Your task to perform on an android device: Is it going to rain tomorrow? Image 0: 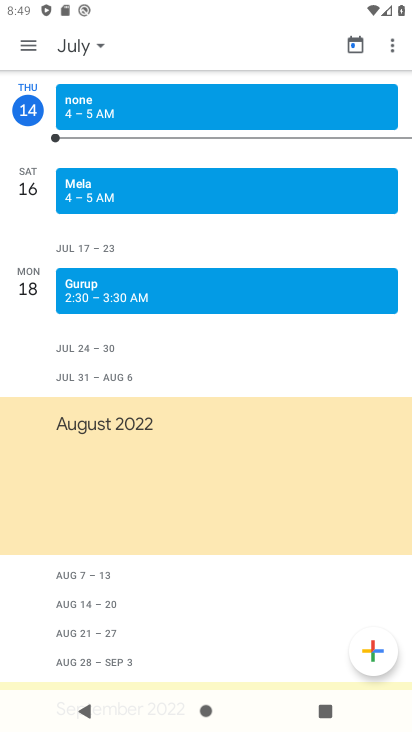
Step 0: press home button
Your task to perform on an android device: Is it going to rain tomorrow? Image 1: 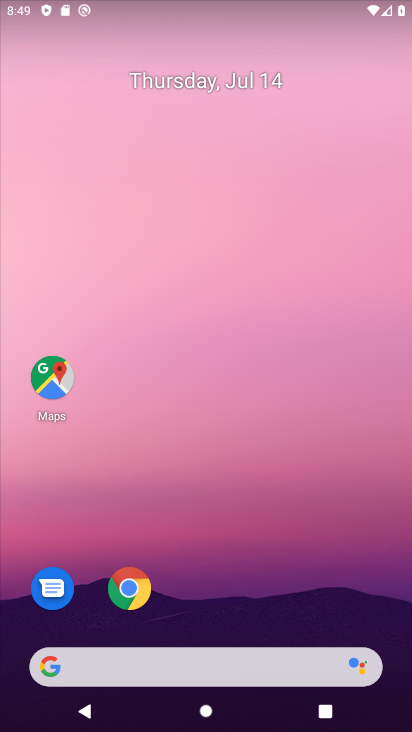
Step 1: drag from (196, 535) to (131, 56)
Your task to perform on an android device: Is it going to rain tomorrow? Image 2: 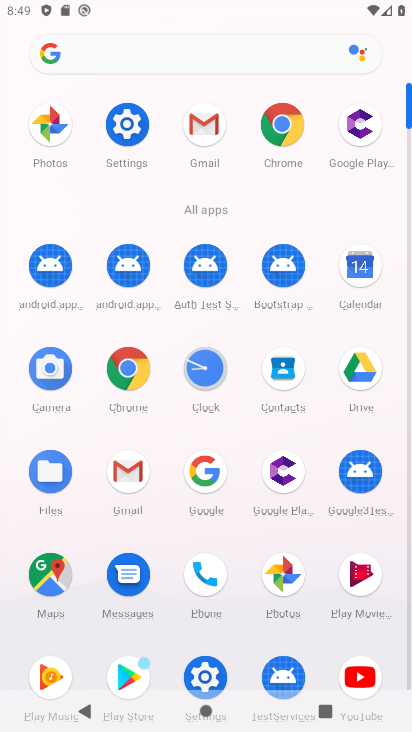
Step 2: click (358, 265)
Your task to perform on an android device: Is it going to rain tomorrow? Image 3: 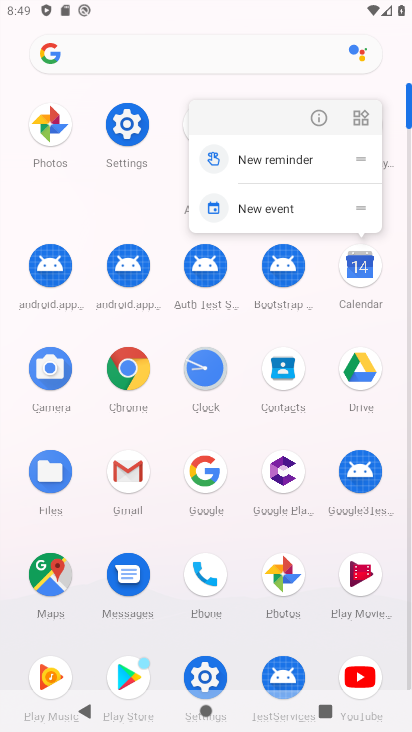
Step 3: click (358, 265)
Your task to perform on an android device: Is it going to rain tomorrow? Image 4: 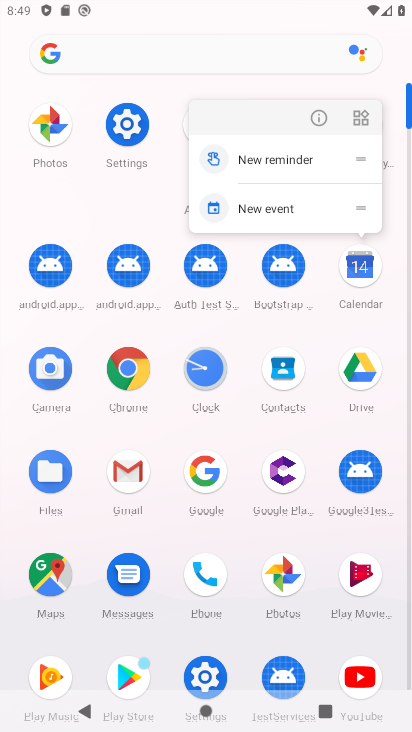
Step 4: click (355, 264)
Your task to perform on an android device: Is it going to rain tomorrow? Image 5: 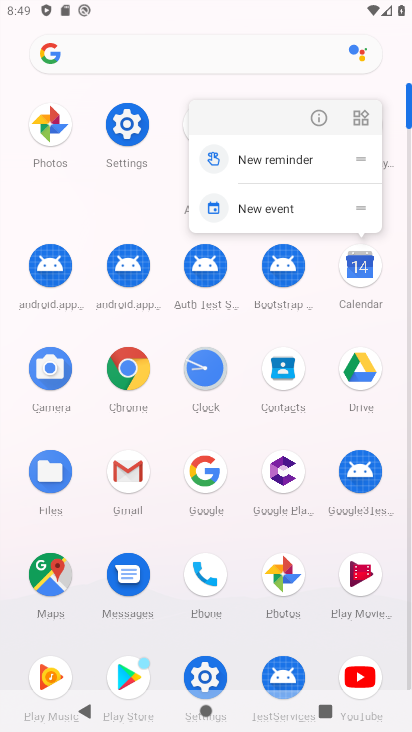
Step 5: click (360, 274)
Your task to perform on an android device: Is it going to rain tomorrow? Image 6: 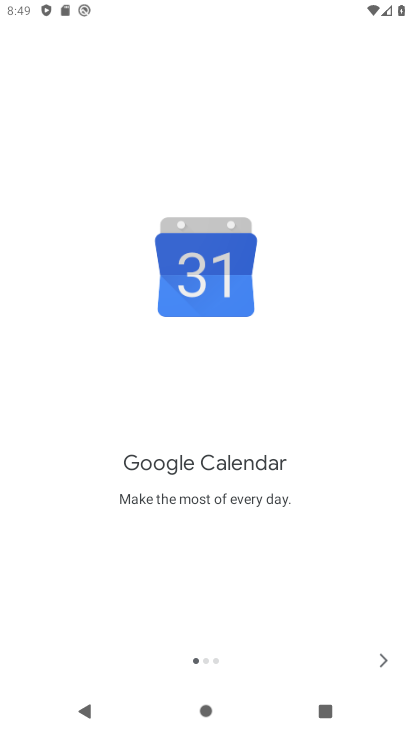
Step 6: click (384, 659)
Your task to perform on an android device: Is it going to rain tomorrow? Image 7: 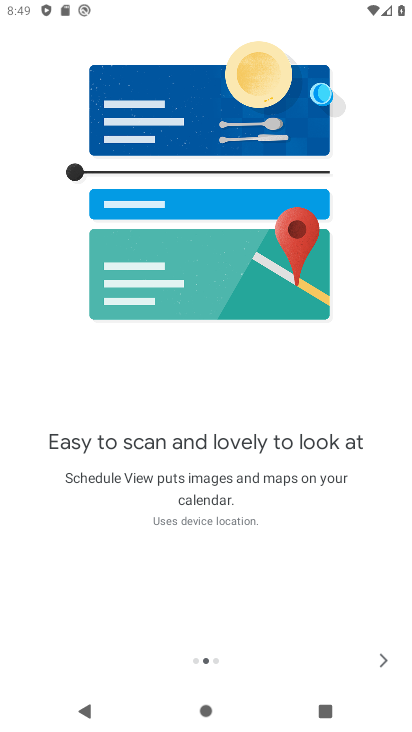
Step 7: click (384, 659)
Your task to perform on an android device: Is it going to rain tomorrow? Image 8: 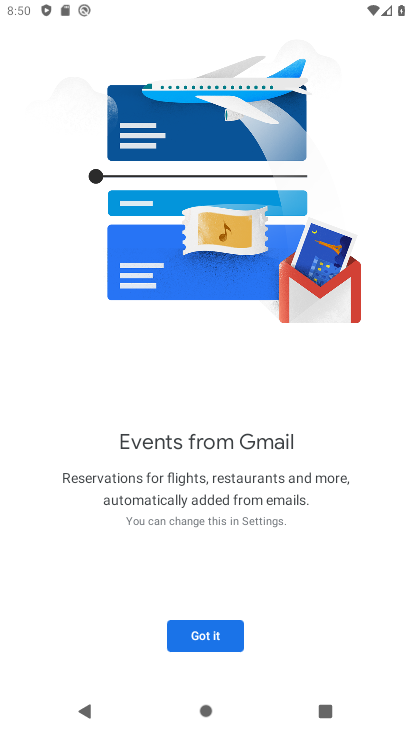
Step 8: click (216, 633)
Your task to perform on an android device: Is it going to rain tomorrow? Image 9: 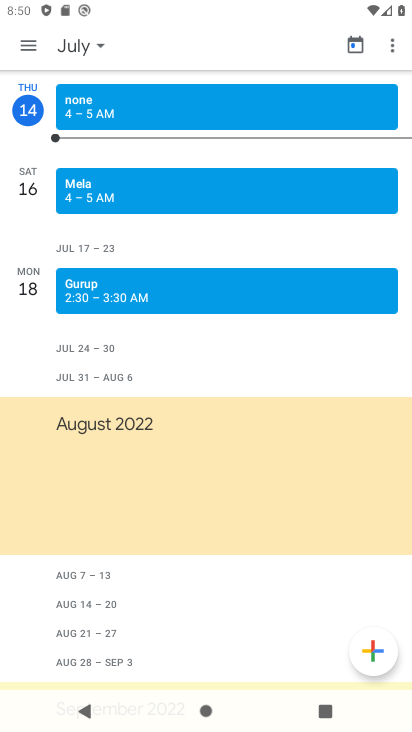
Step 9: click (69, 36)
Your task to perform on an android device: Is it going to rain tomorrow? Image 10: 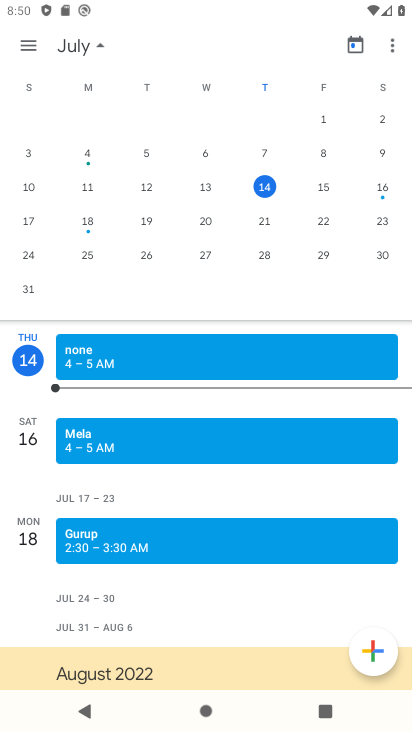
Step 10: click (324, 185)
Your task to perform on an android device: Is it going to rain tomorrow? Image 11: 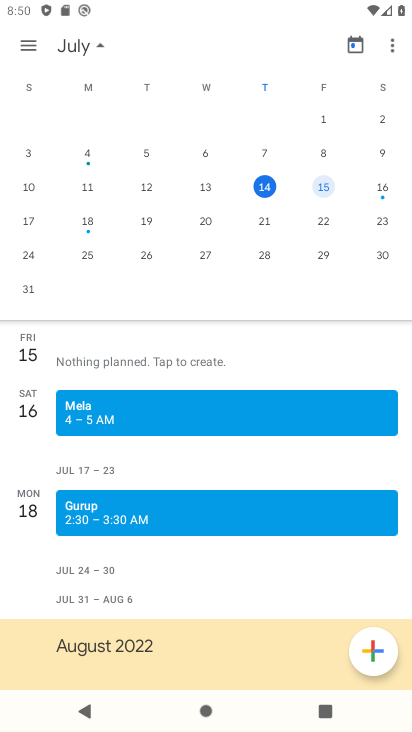
Step 11: task complete